Your task to perform on an android device: Check the weather Image 0: 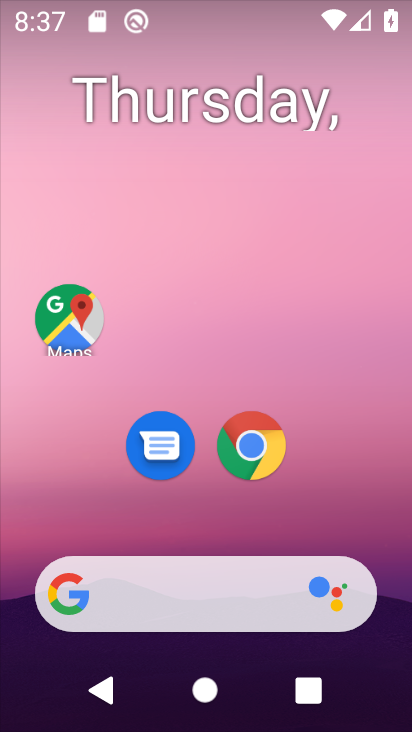
Step 0: click (268, 467)
Your task to perform on an android device: Check the weather Image 1: 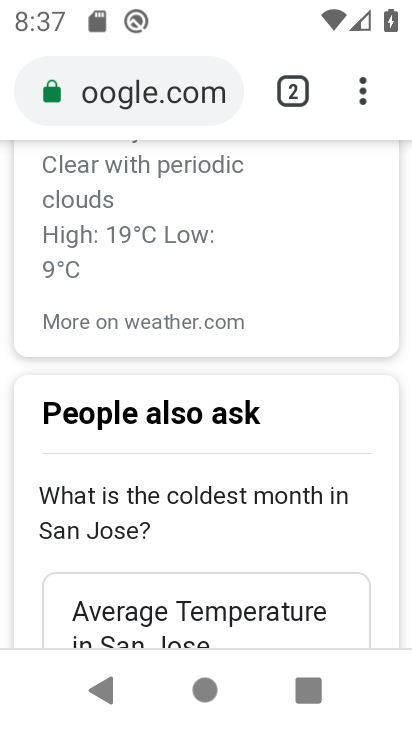
Step 1: task complete